Your task to perform on an android device: Go to Maps Image 0: 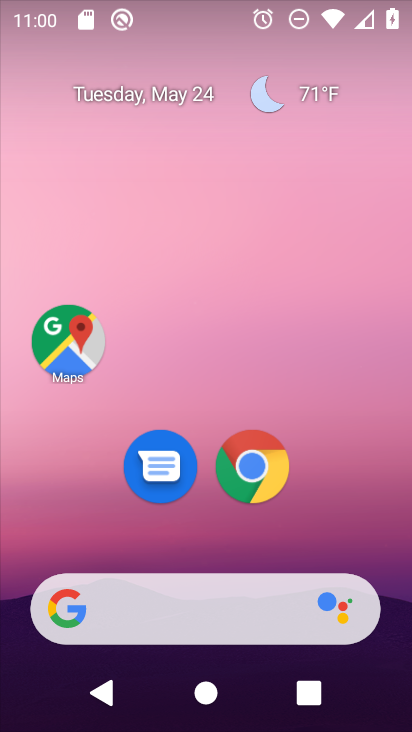
Step 0: click (58, 332)
Your task to perform on an android device: Go to Maps Image 1: 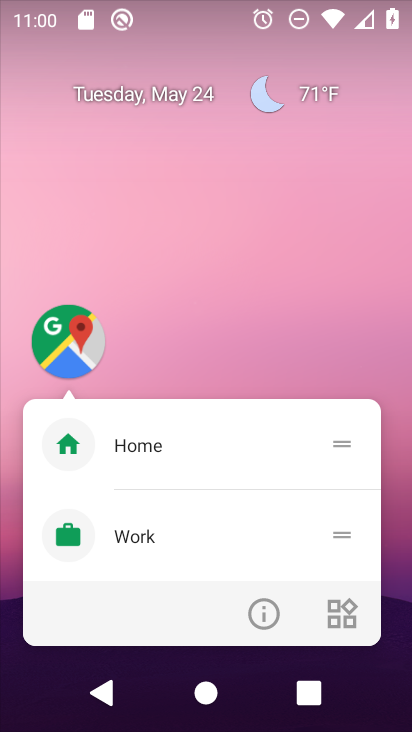
Step 1: click (76, 343)
Your task to perform on an android device: Go to Maps Image 2: 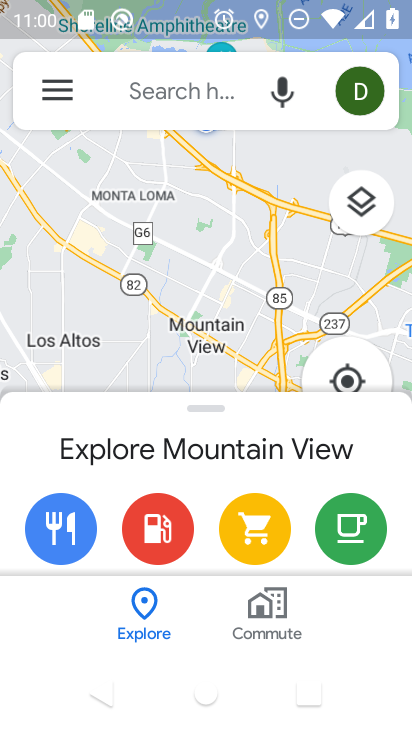
Step 2: task complete